Your task to perform on an android device: Open the web browser Image 0: 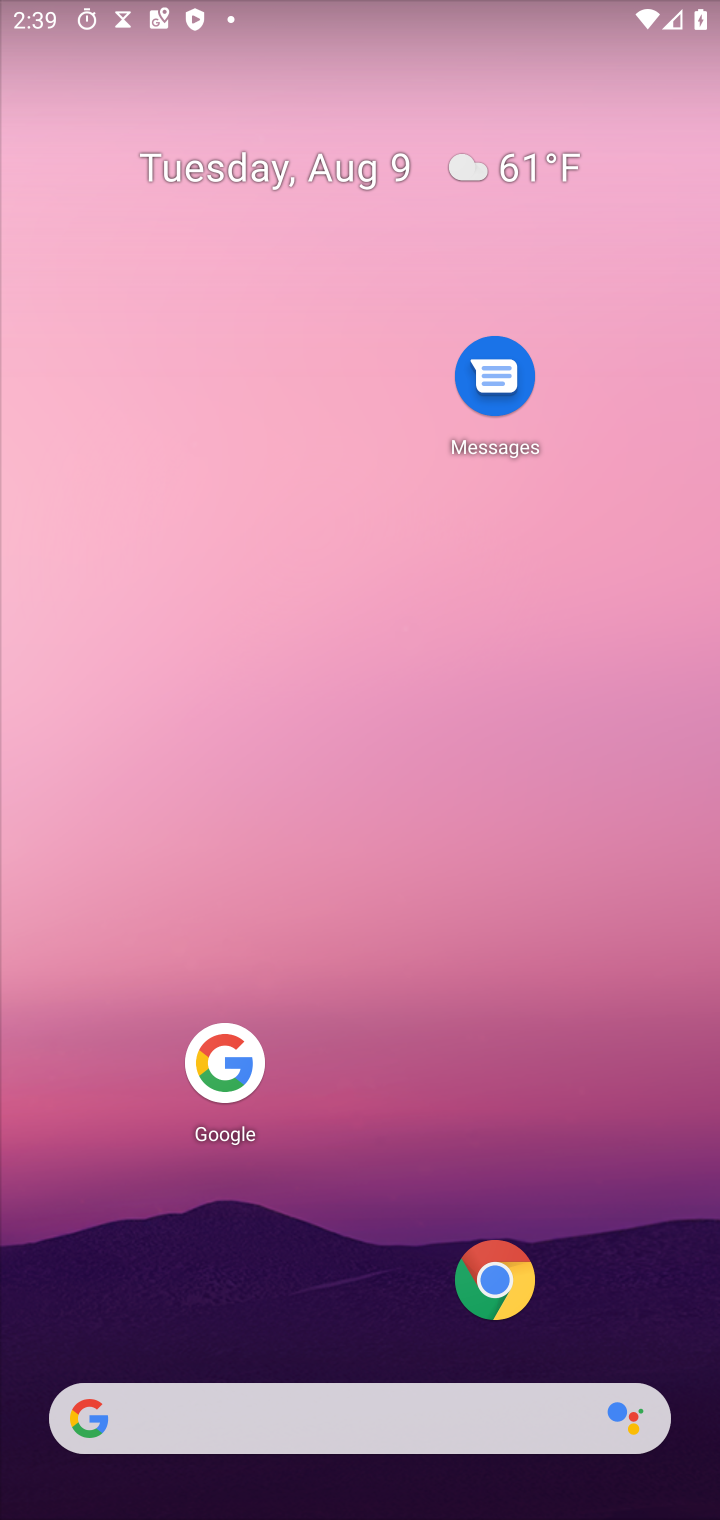
Step 0: press home button
Your task to perform on an android device: Open the web browser Image 1: 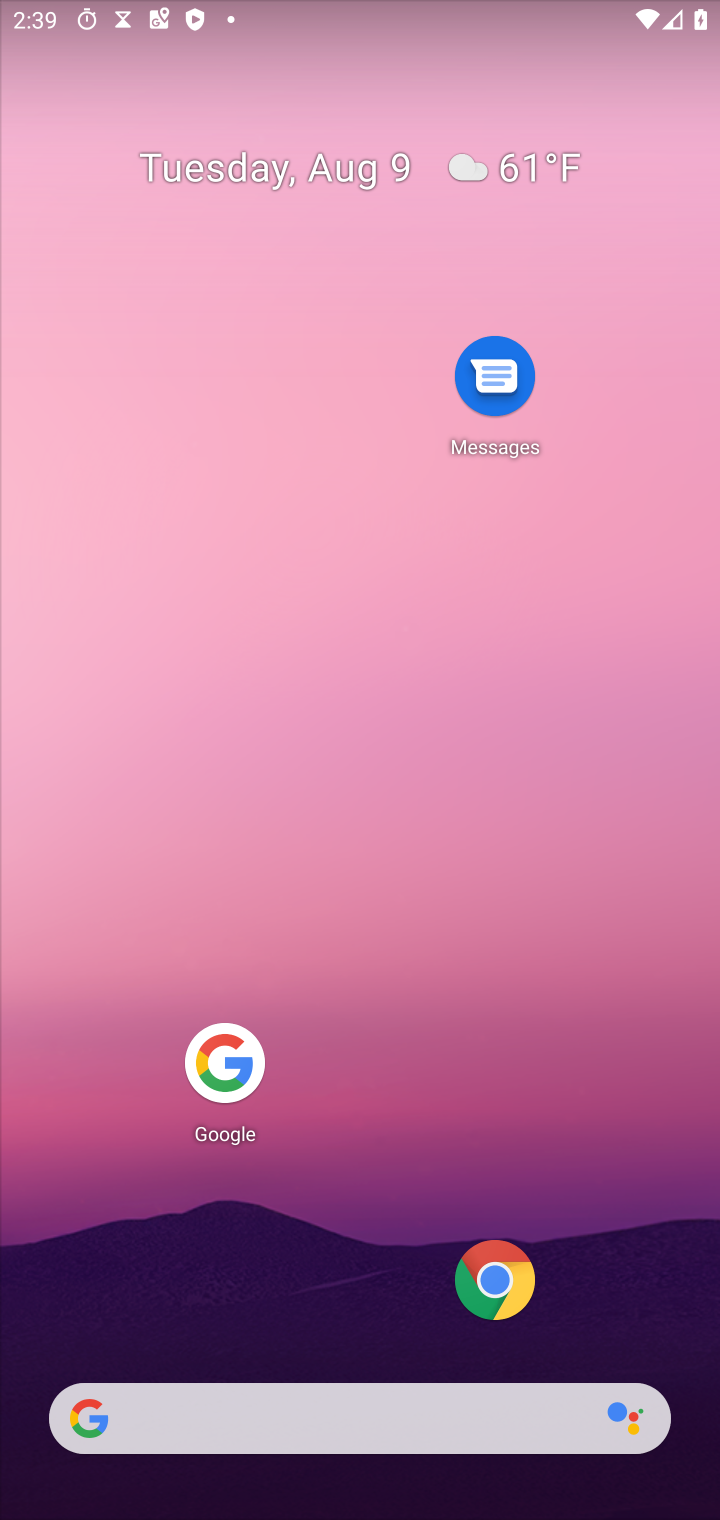
Step 1: click (491, 1263)
Your task to perform on an android device: Open the web browser Image 2: 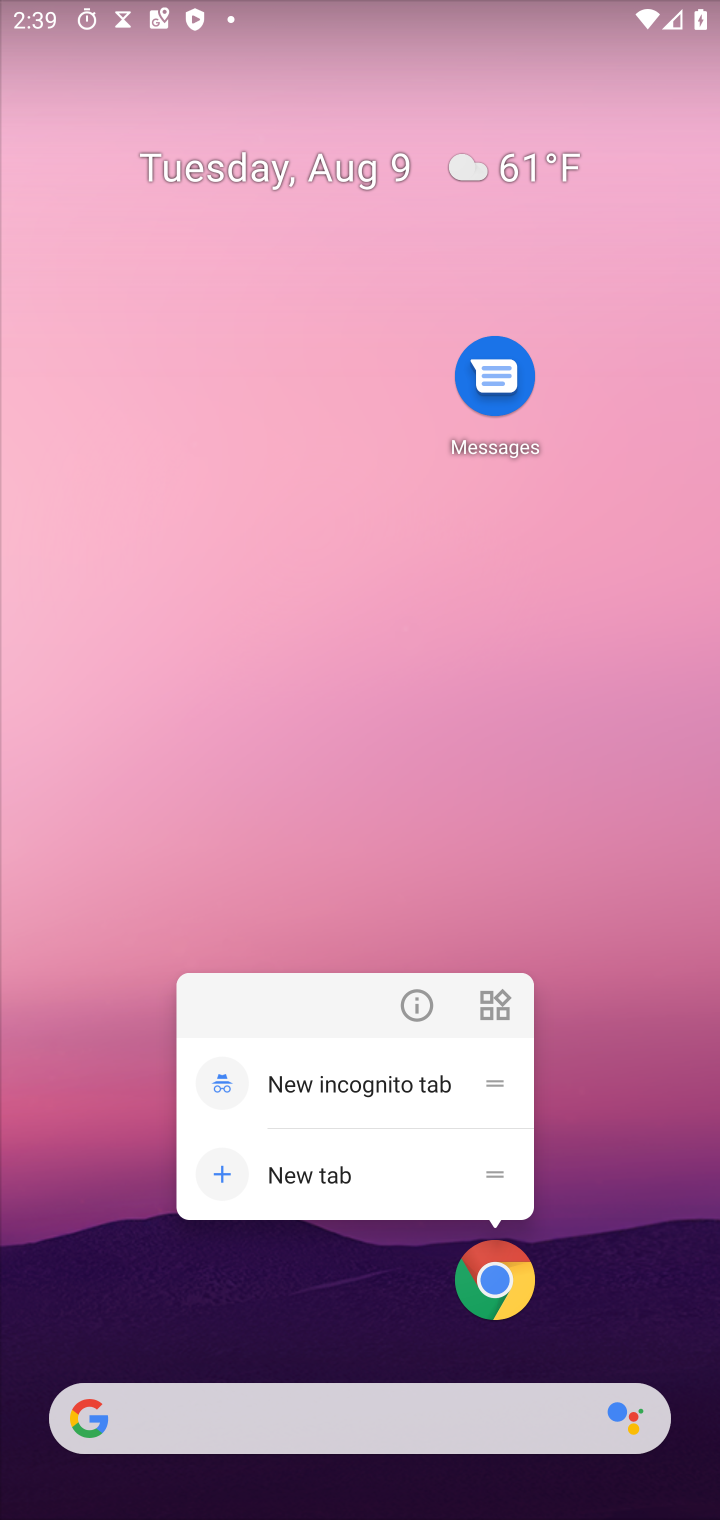
Step 2: click (489, 1279)
Your task to perform on an android device: Open the web browser Image 3: 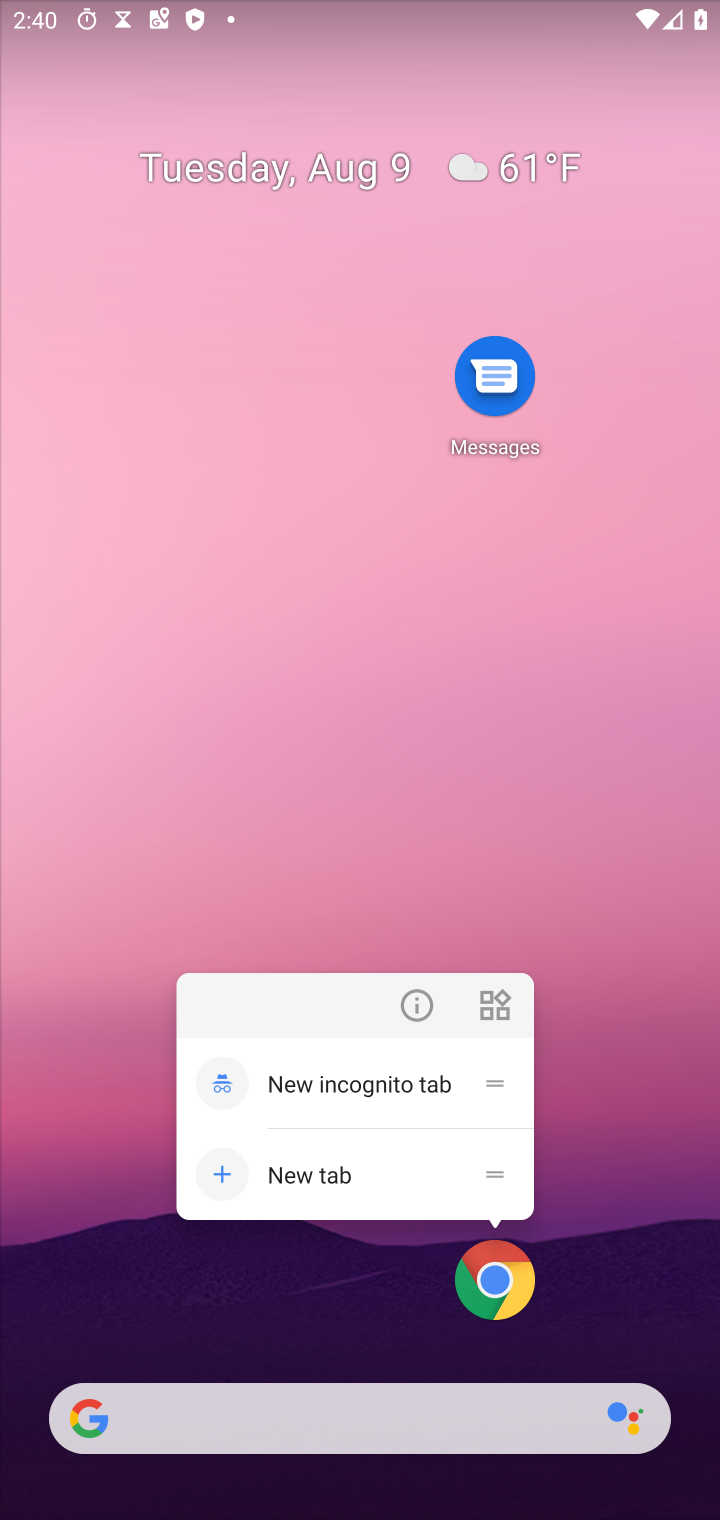
Step 3: click (504, 1282)
Your task to perform on an android device: Open the web browser Image 4: 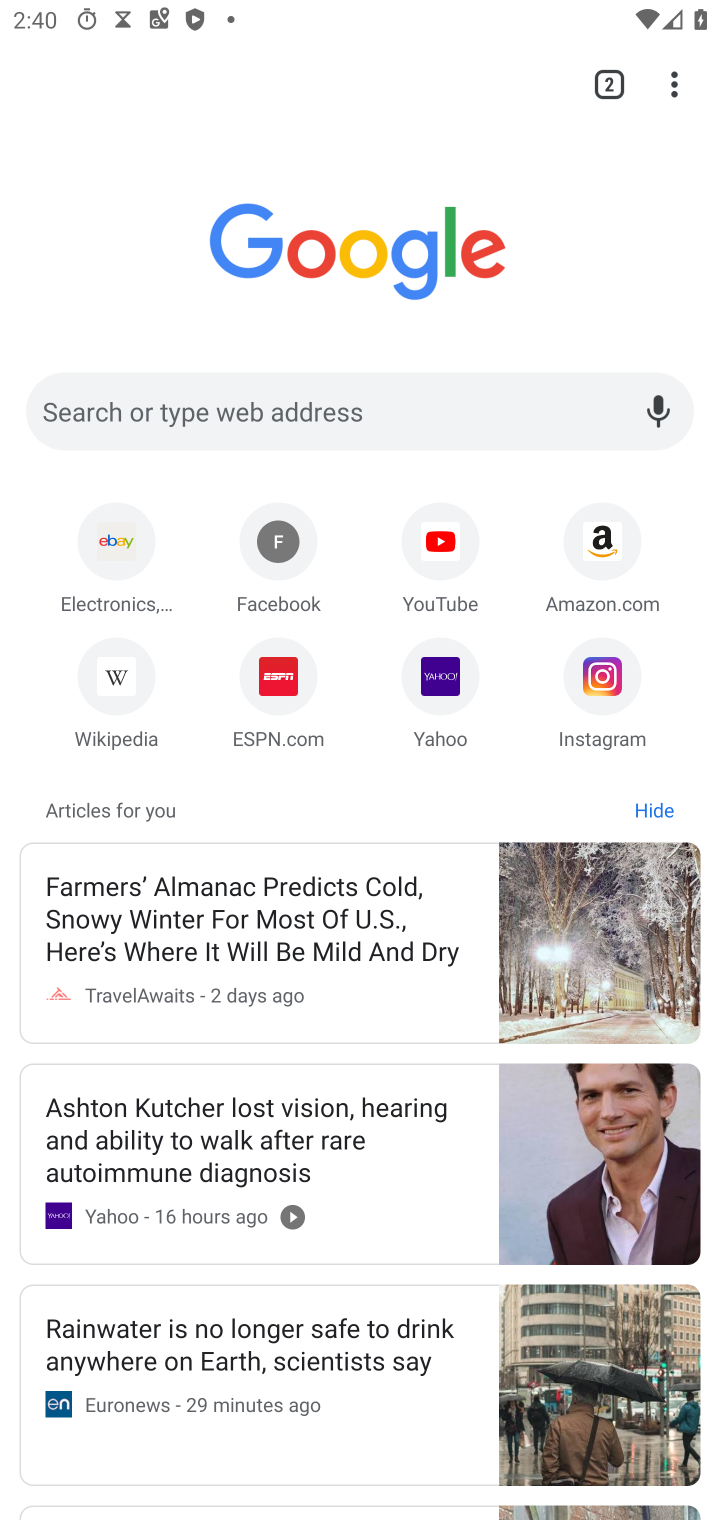
Step 4: task complete